Your task to perform on an android device: Open wifi settings Image 0: 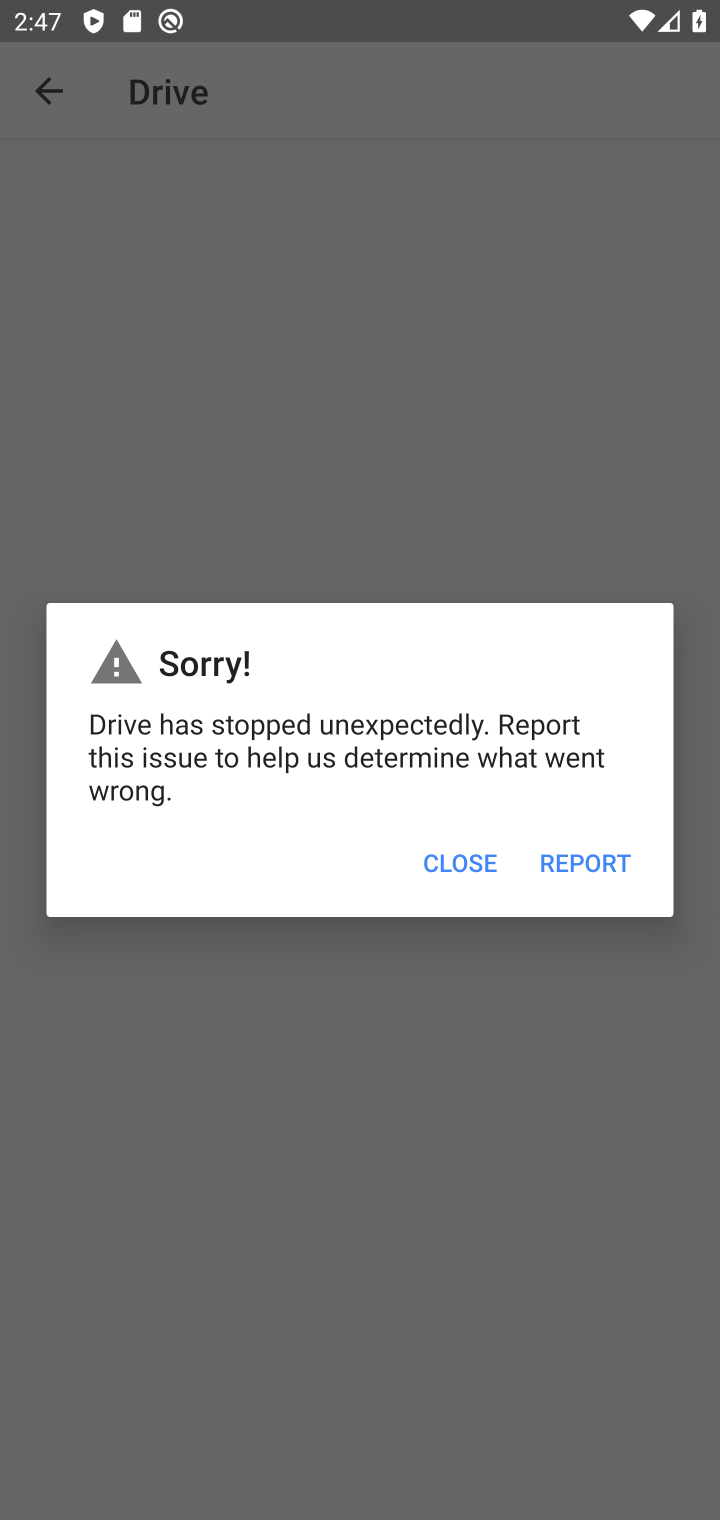
Step 0: press home button
Your task to perform on an android device: Open wifi settings Image 1: 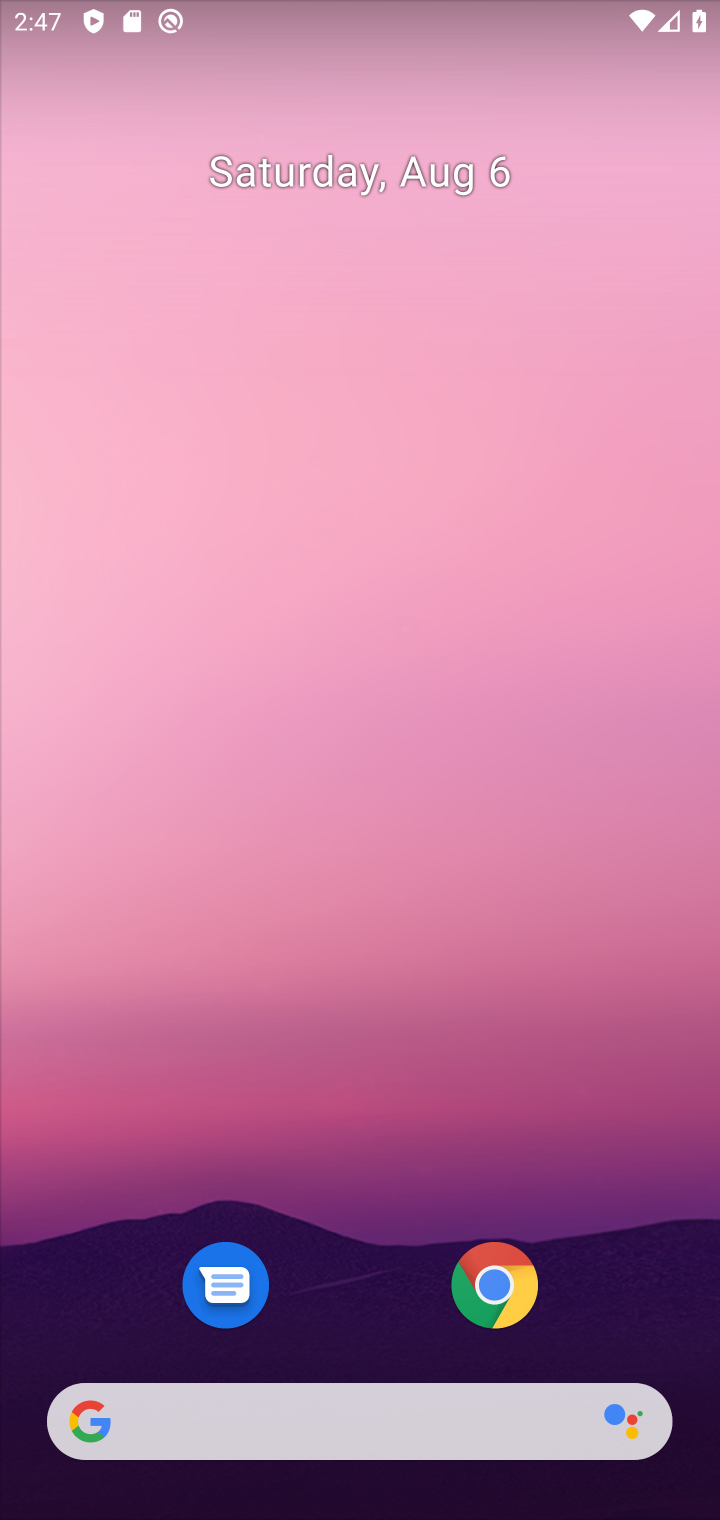
Step 1: drag from (232, 1376) to (277, 120)
Your task to perform on an android device: Open wifi settings Image 2: 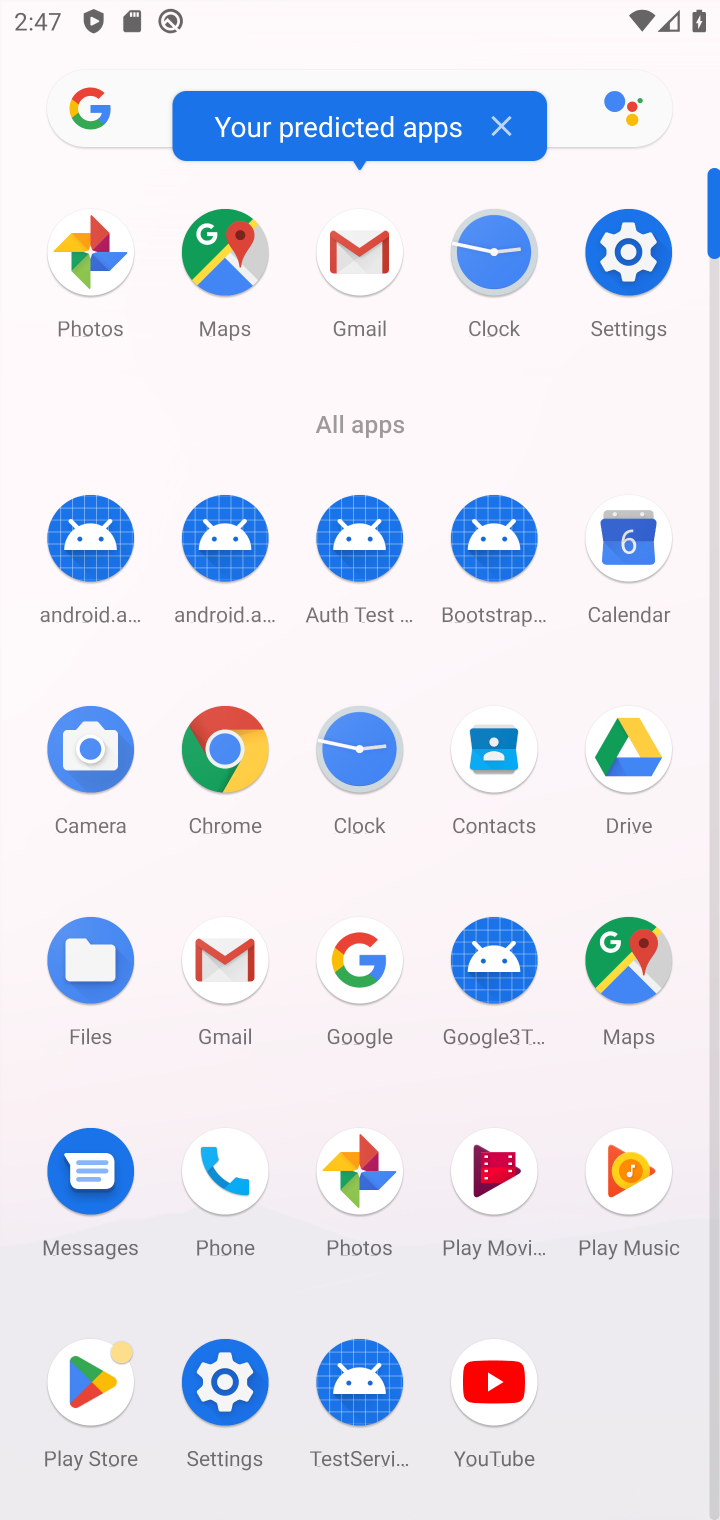
Step 2: click (671, 263)
Your task to perform on an android device: Open wifi settings Image 3: 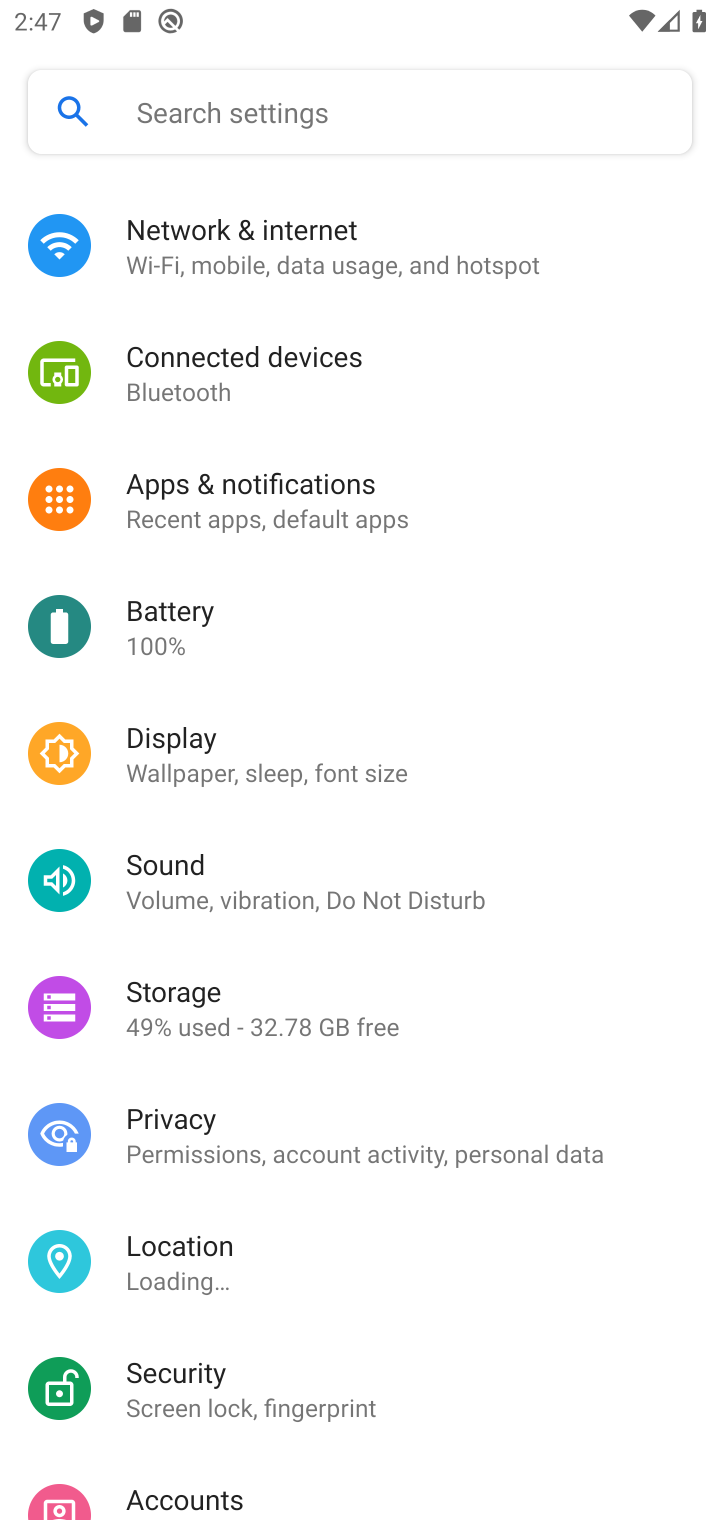
Step 3: click (279, 231)
Your task to perform on an android device: Open wifi settings Image 4: 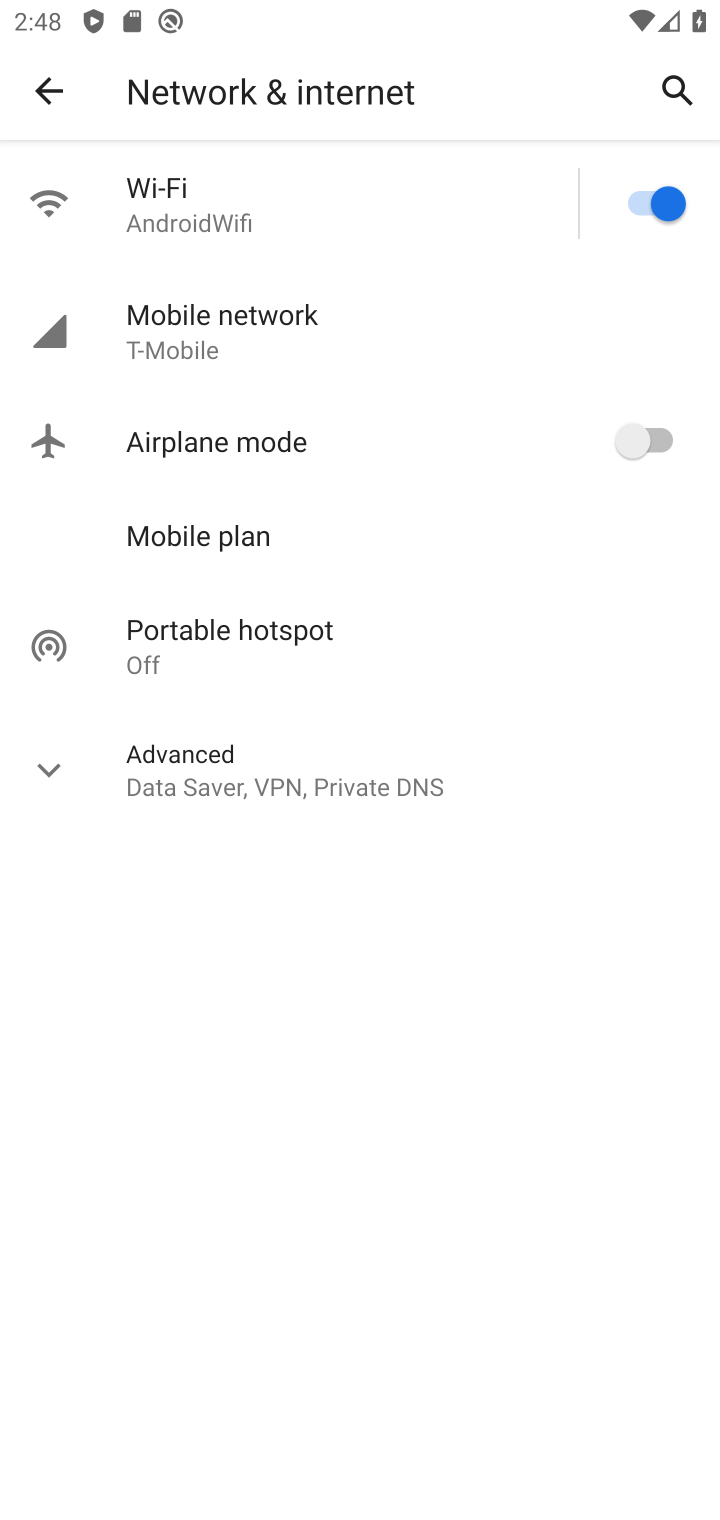
Step 4: click (147, 196)
Your task to perform on an android device: Open wifi settings Image 5: 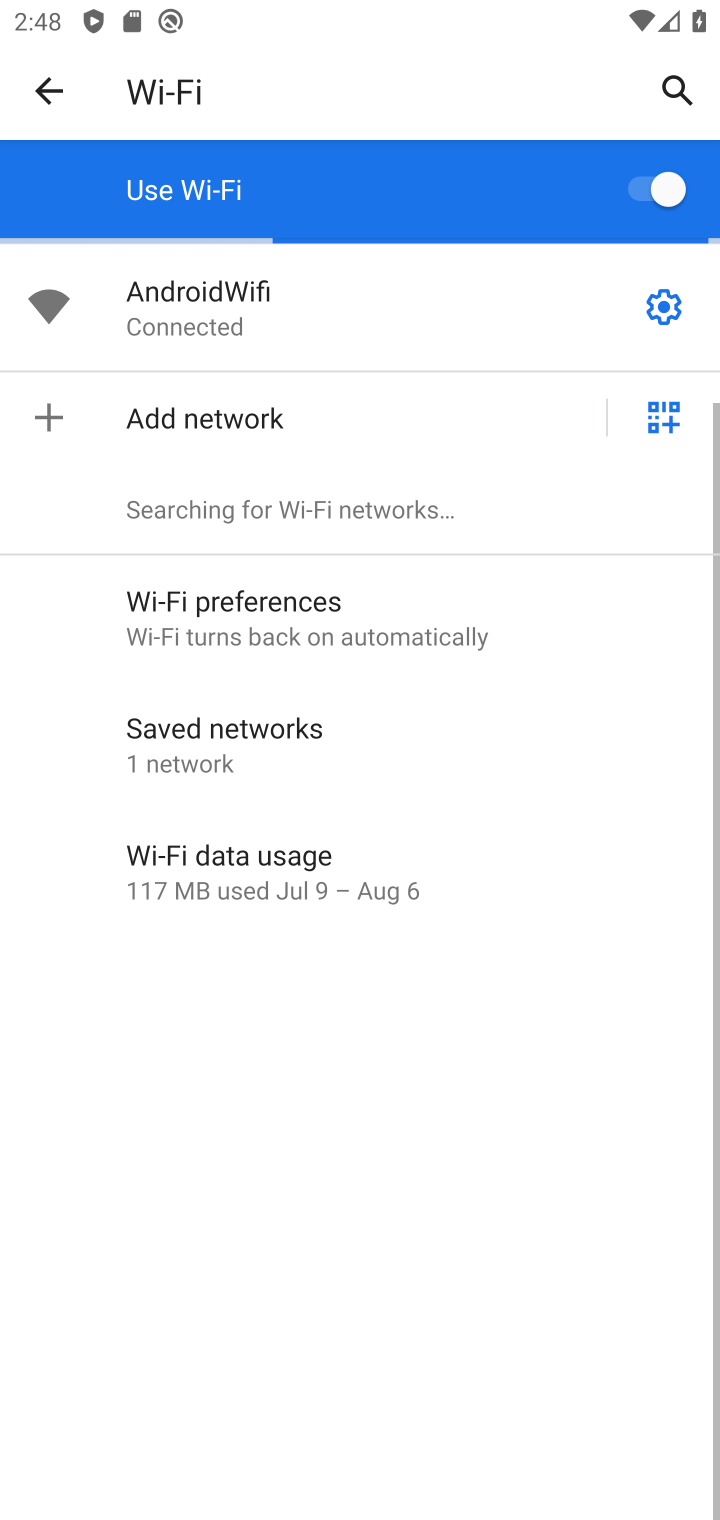
Step 5: task complete